Your task to perform on an android device: Check the news Image 0: 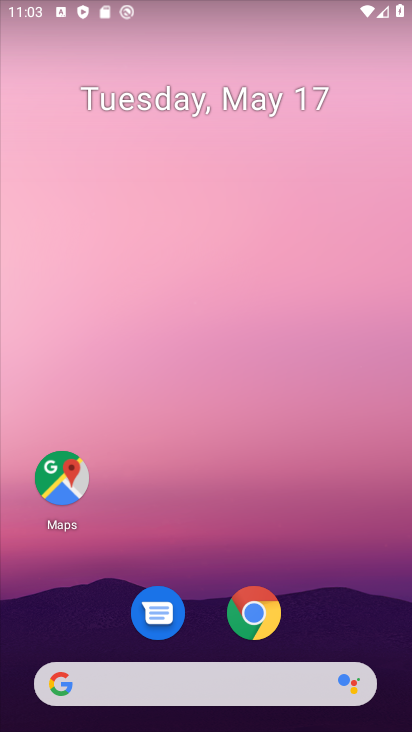
Step 0: click (242, 616)
Your task to perform on an android device: Check the news Image 1: 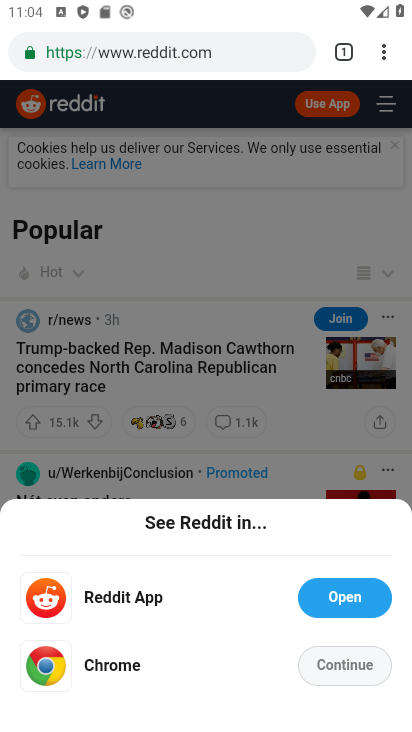
Step 1: click (140, 60)
Your task to perform on an android device: Check the news Image 2: 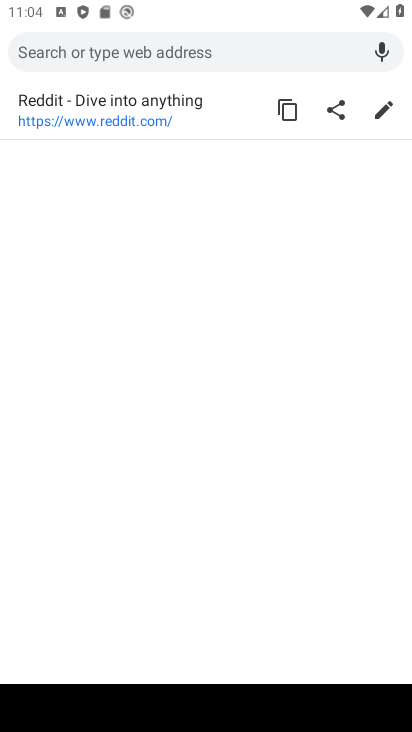
Step 2: type "news"
Your task to perform on an android device: Check the news Image 3: 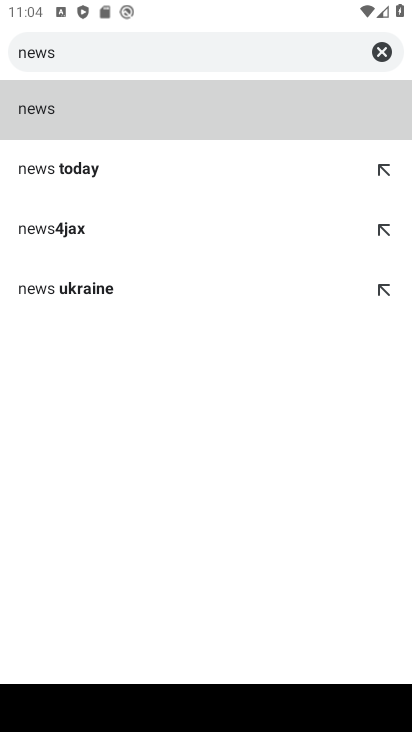
Step 3: click (163, 117)
Your task to perform on an android device: Check the news Image 4: 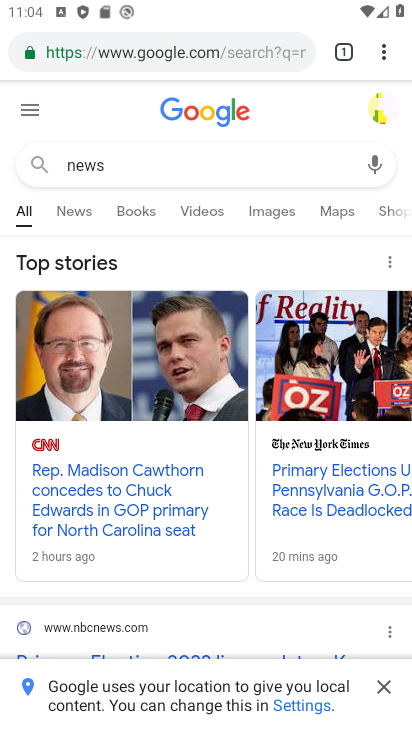
Step 4: task complete